Your task to perform on an android device: move a message to another label in the gmail app Image 0: 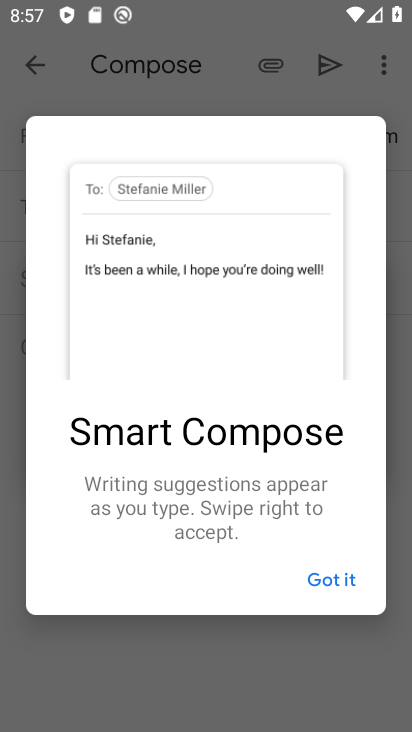
Step 0: press home button
Your task to perform on an android device: move a message to another label in the gmail app Image 1: 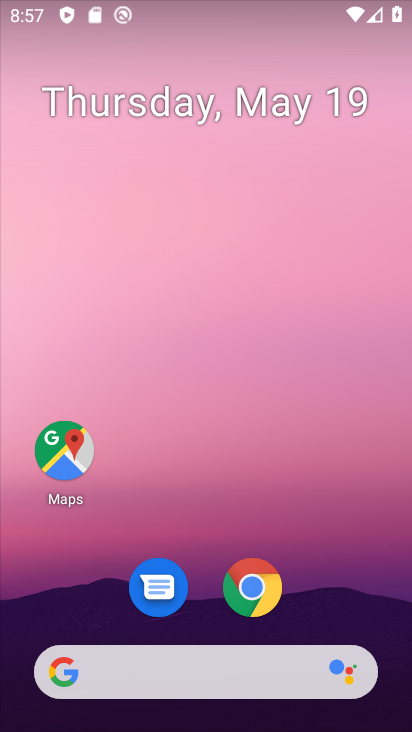
Step 1: drag from (326, 559) to (295, 148)
Your task to perform on an android device: move a message to another label in the gmail app Image 2: 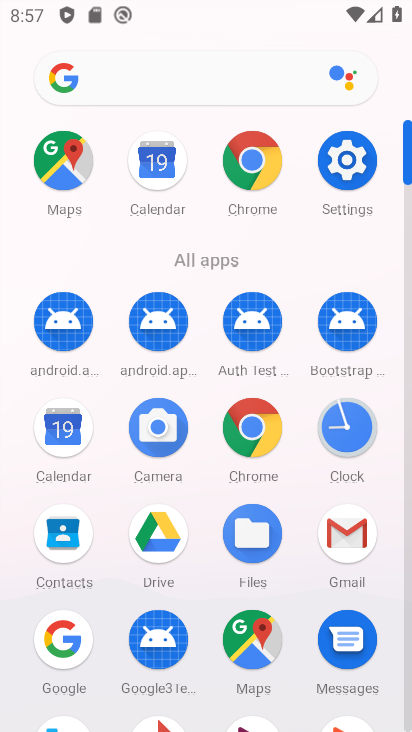
Step 2: click (349, 528)
Your task to perform on an android device: move a message to another label in the gmail app Image 3: 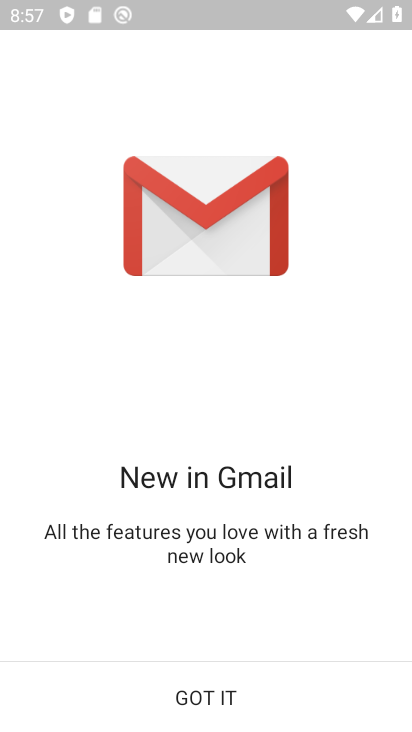
Step 3: click (237, 690)
Your task to perform on an android device: move a message to another label in the gmail app Image 4: 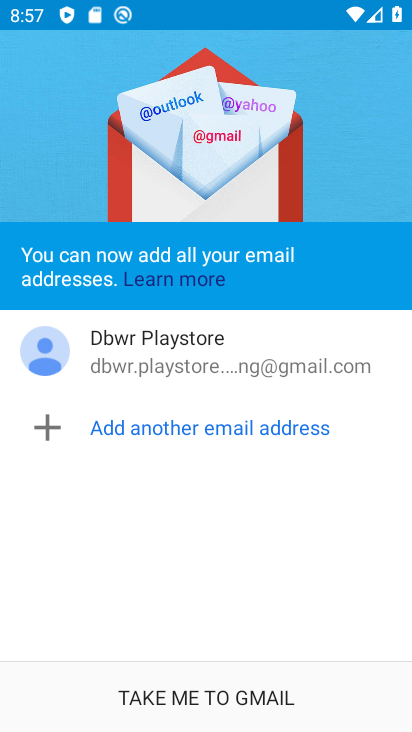
Step 4: click (237, 684)
Your task to perform on an android device: move a message to another label in the gmail app Image 5: 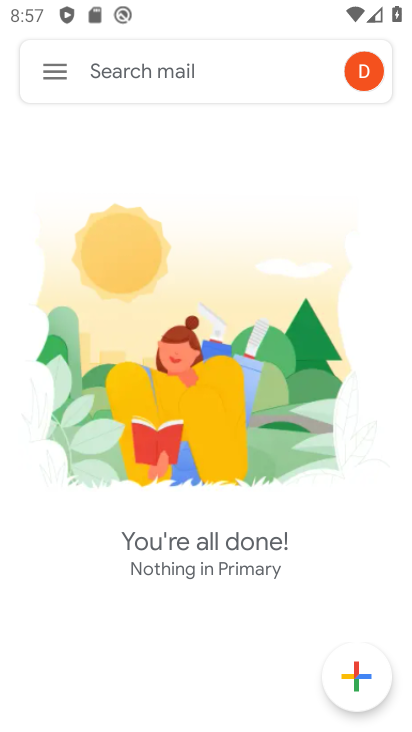
Step 5: click (45, 65)
Your task to perform on an android device: move a message to another label in the gmail app Image 6: 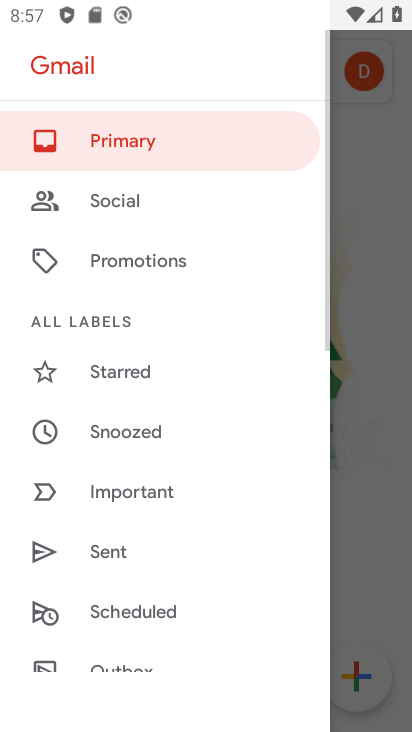
Step 6: drag from (204, 533) to (166, 71)
Your task to perform on an android device: move a message to another label in the gmail app Image 7: 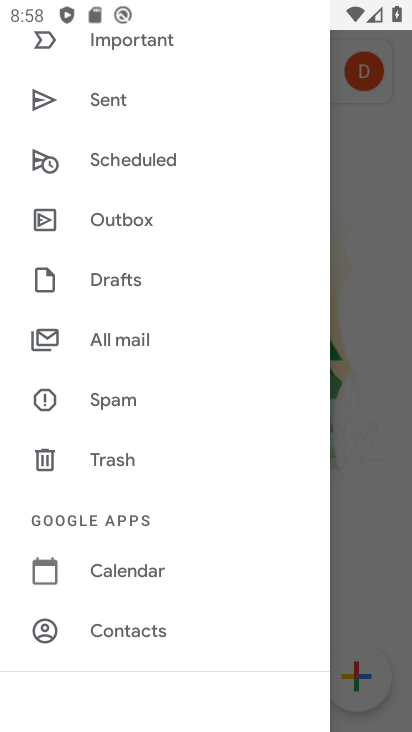
Step 7: click (108, 330)
Your task to perform on an android device: move a message to another label in the gmail app Image 8: 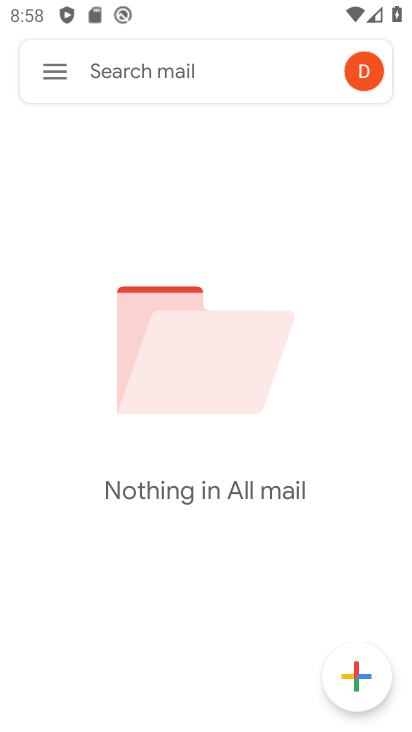
Step 8: task complete